Your task to perform on an android device: Set the phone to "Do not disturb". Image 0: 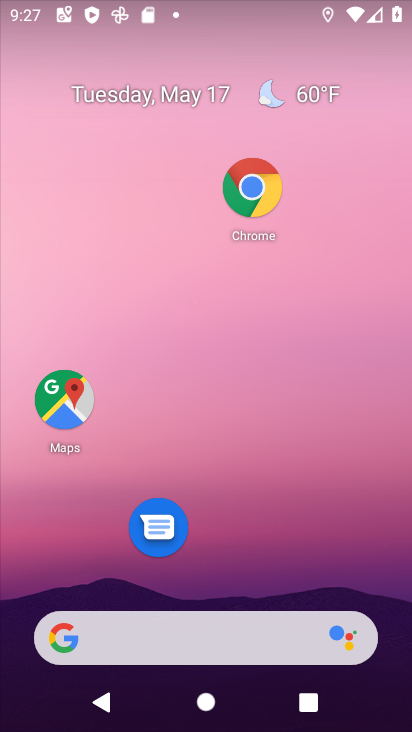
Step 0: drag from (343, 545) to (291, 37)
Your task to perform on an android device: Set the phone to "Do not disturb". Image 1: 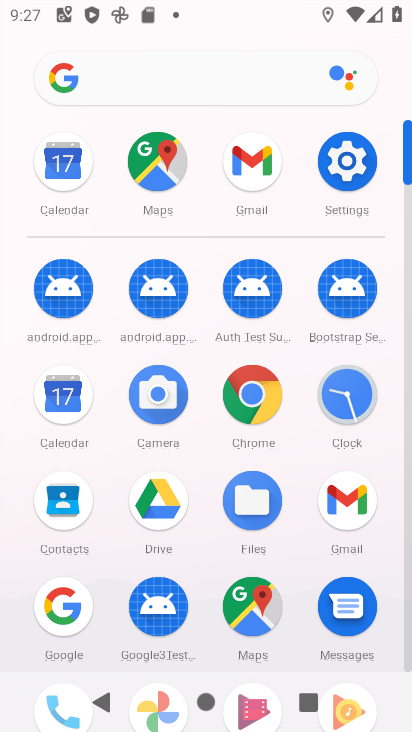
Step 1: click (364, 172)
Your task to perform on an android device: Set the phone to "Do not disturb". Image 2: 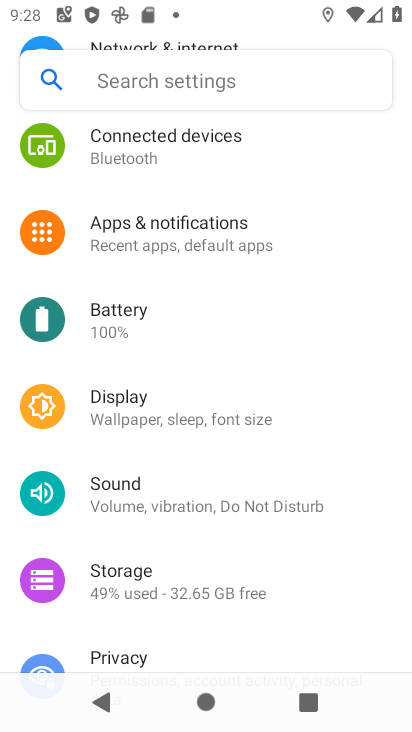
Step 2: click (204, 487)
Your task to perform on an android device: Set the phone to "Do not disturb". Image 3: 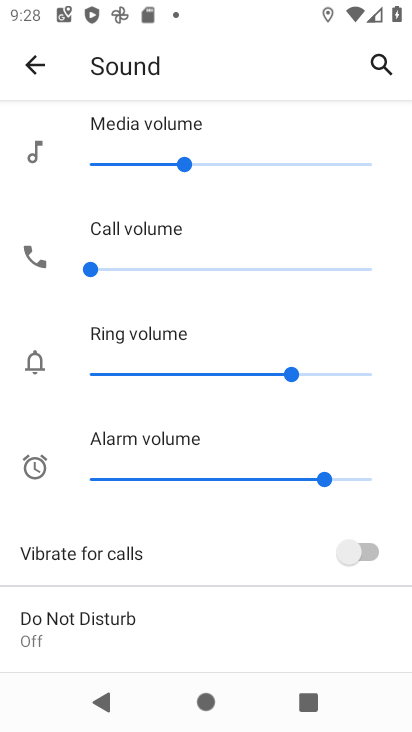
Step 3: click (163, 645)
Your task to perform on an android device: Set the phone to "Do not disturb". Image 4: 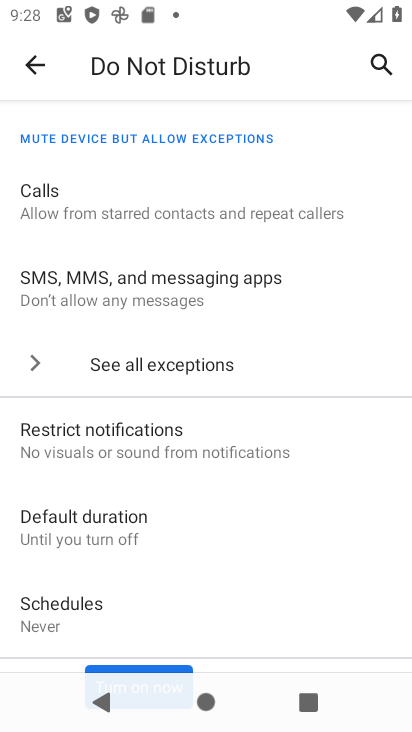
Step 4: drag from (201, 502) to (202, 266)
Your task to perform on an android device: Set the phone to "Do not disturb". Image 5: 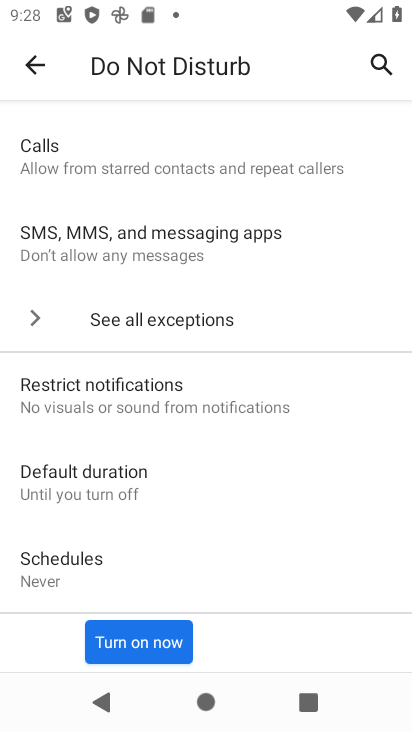
Step 5: click (136, 644)
Your task to perform on an android device: Set the phone to "Do not disturb". Image 6: 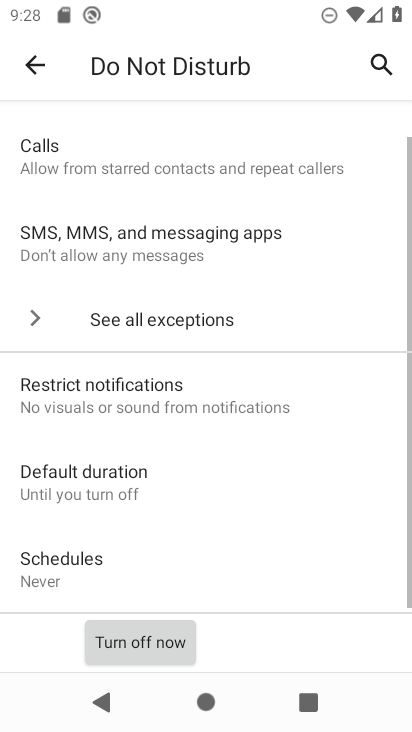
Step 6: task complete